Your task to perform on an android device: What's the weather today? Image 0: 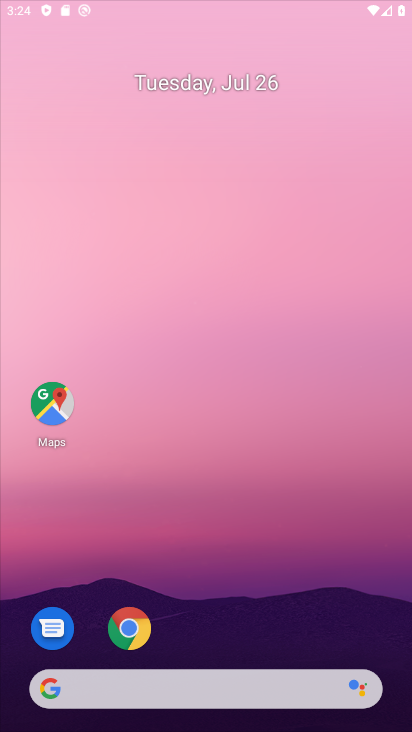
Step 0: click (219, 219)
Your task to perform on an android device: What's the weather today? Image 1: 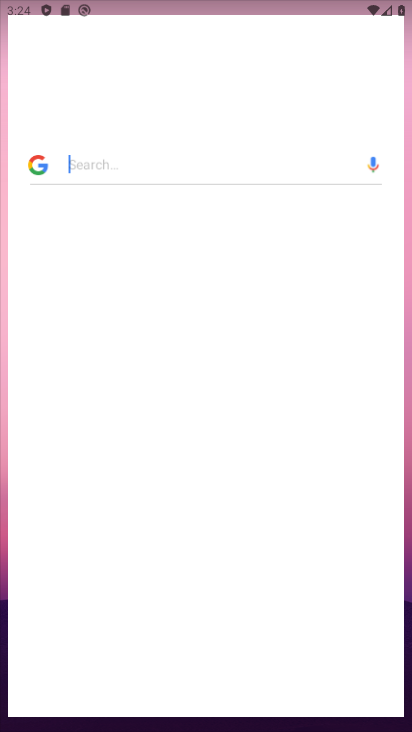
Step 1: drag from (259, 526) to (186, 216)
Your task to perform on an android device: What's the weather today? Image 2: 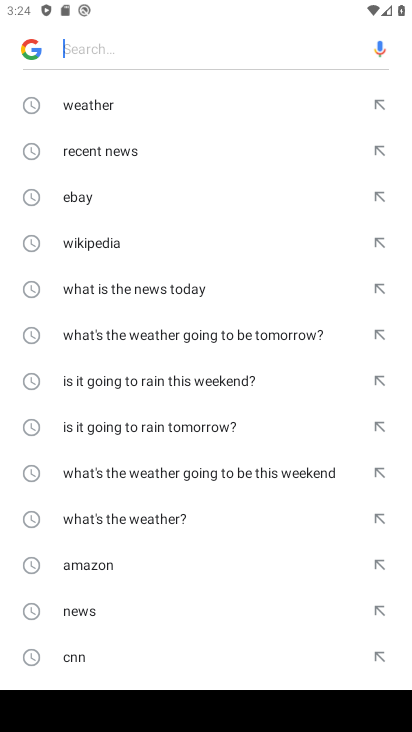
Step 2: drag from (197, 495) to (190, 383)
Your task to perform on an android device: What's the weather today? Image 3: 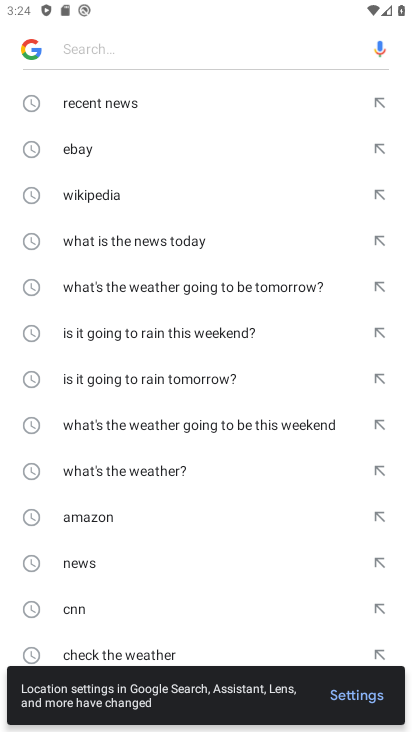
Step 3: press back button
Your task to perform on an android device: What's the weather today? Image 4: 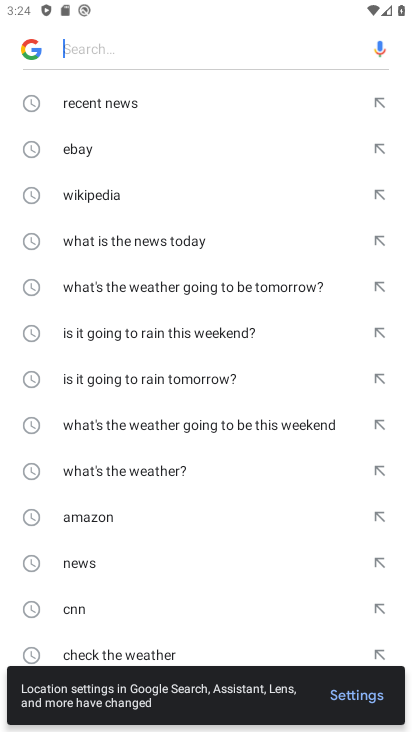
Step 4: press back button
Your task to perform on an android device: What's the weather today? Image 5: 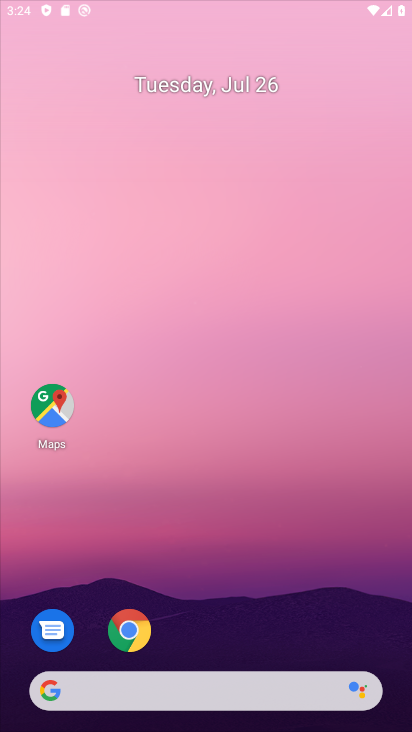
Step 5: press back button
Your task to perform on an android device: What's the weather today? Image 6: 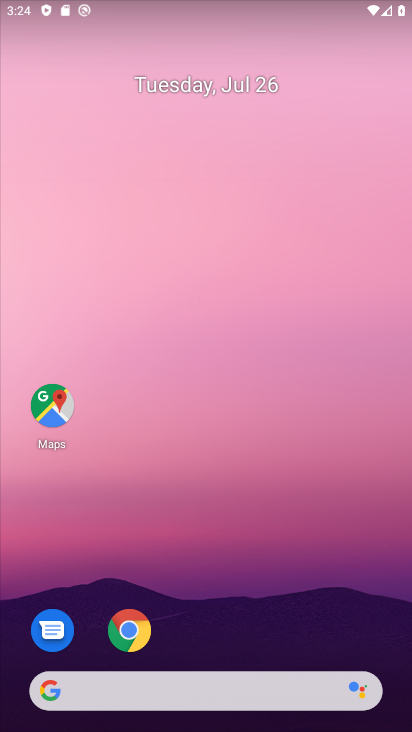
Step 6: drag from (230, 664) to (173, 13)
Your task to perform on an android device: What's the weather today? Image 7: 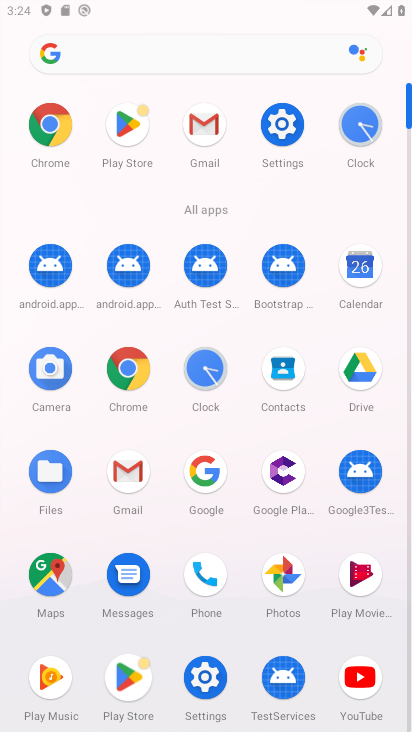
Step 7: drag from (239, 535) to (165, 37)
Your task to perform on an android device: What's the weather today? Image 8: 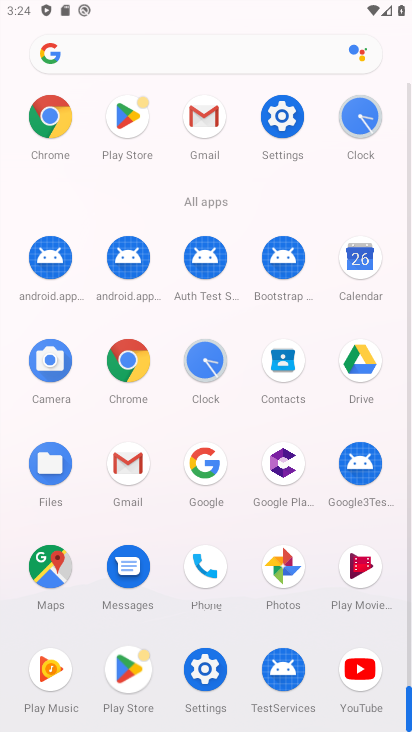
Step 8: click (42, 112)
Your task to perform on an android device: What's the weather today? Image 9: 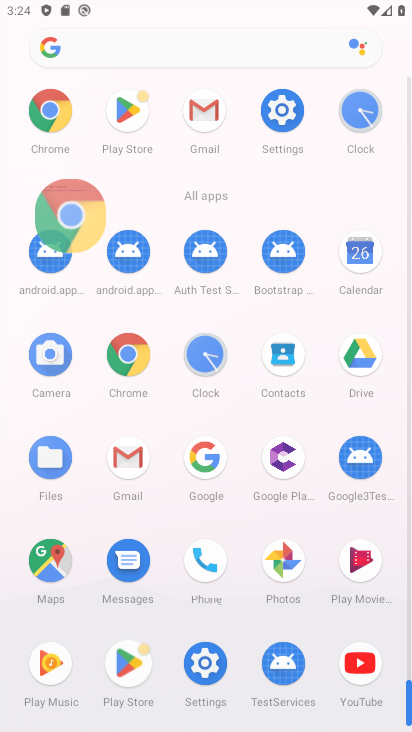
Step 9: click (50, 112)
Your task to perform on an android device: What's the weather today? Image 10: 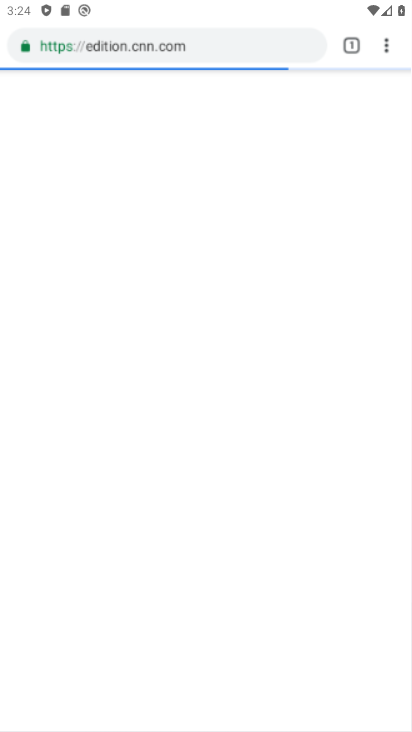
Step 10: click (50, 112)
Your task to perform on an android device: What's the weather today? Image 11: 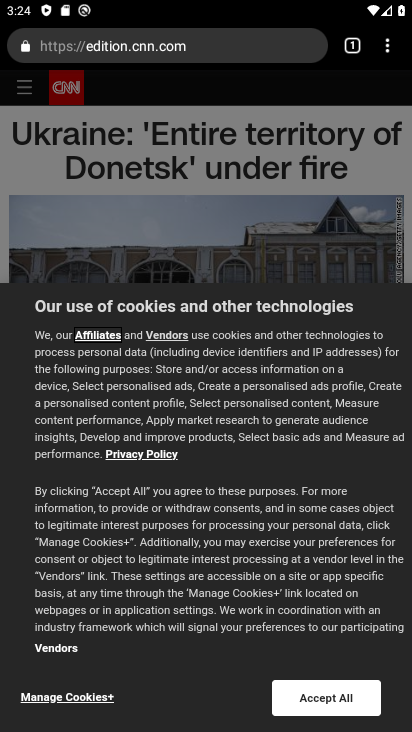
Step 11: click (386, 48)
Your task to perform on an android device: What's the weather today? Image 12: 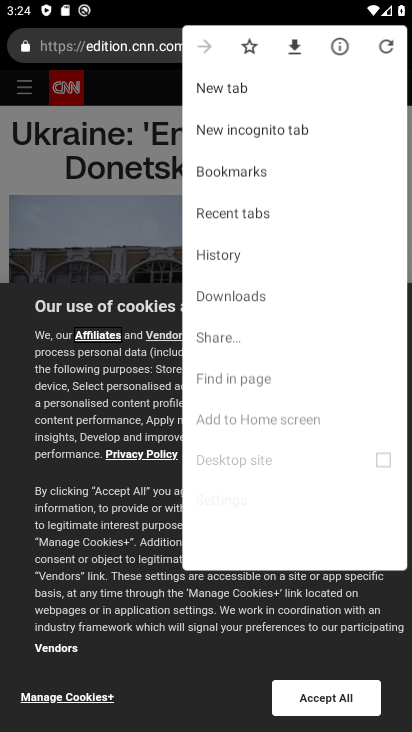
Step 12: press back button
Your task to perform on an android device: What's the weather today? Image 13: 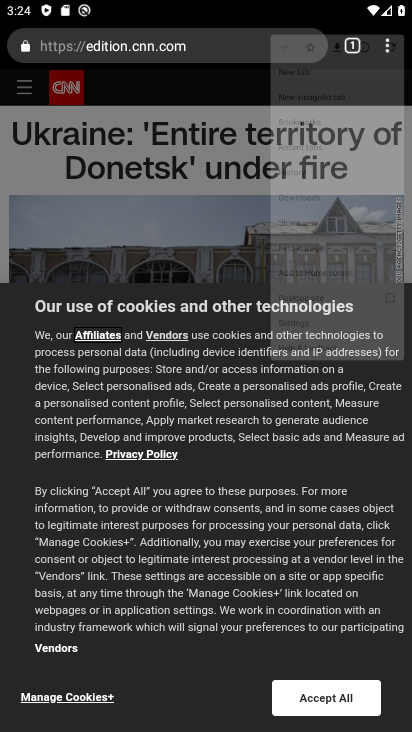
Step 13: press back button
Your task to perform on an android device: What's the weather today? Image 14: 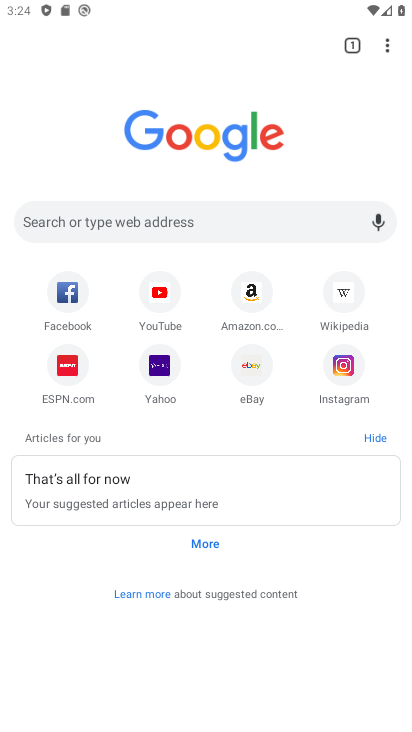
Step 14: click (87, 196)
Your task to perform on an android device: What's the weather today? Image 15: 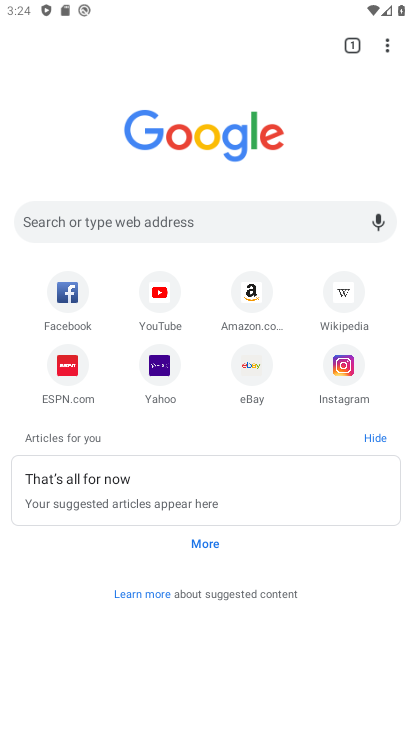
Step 15: click (86, 214)
Your task to perform on an android device: What's the weather today? Image 16: 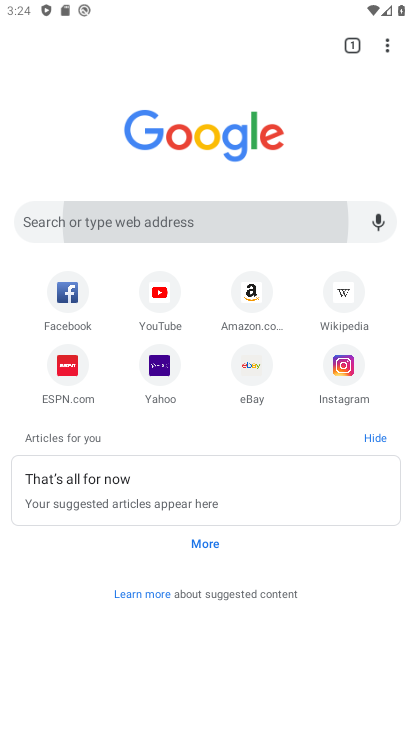
Step 16: click (85, 215)
Your task to perform on an android device: What's the weather today? Image 17: 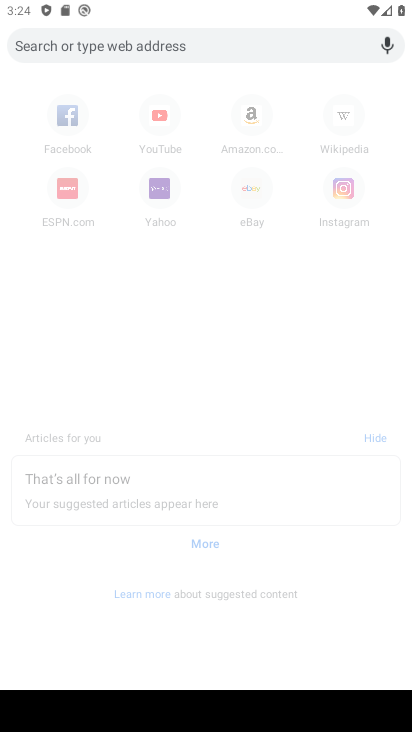
Step 17: type "weather"
Your task to perform on an android device: What's the weather today? Image 18: 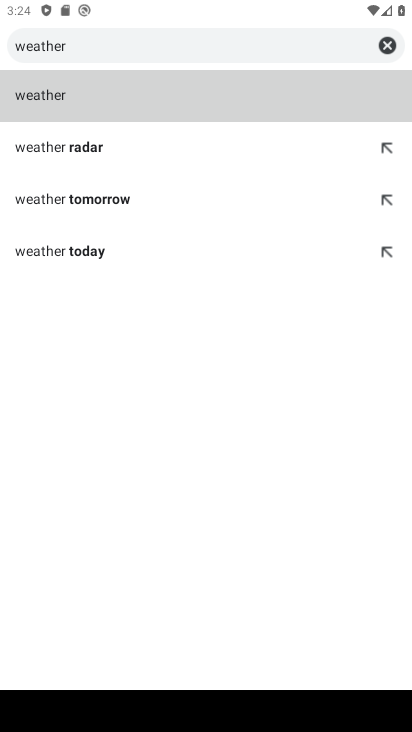
Step 18: click (59, 93)
Your task to perform on an android device: What's the weather today? Image 19: 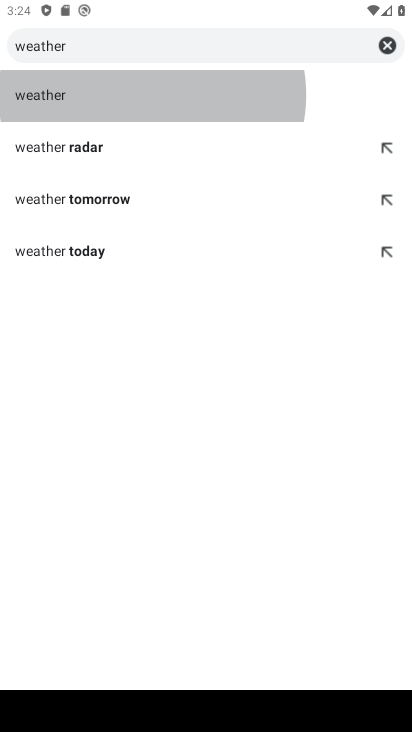
Step 19: click (62, 87)
Your task to perform on an android device: What's the weather today? Image 20: 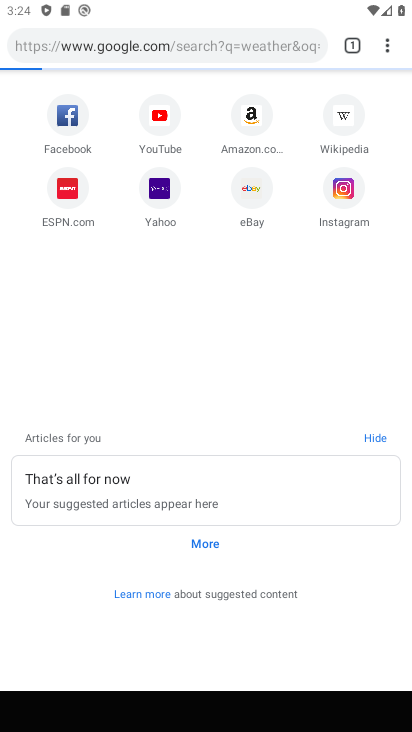
Step 20: click (64, 87)
Your task to perform on an android device: What's the weather today? Image 21: 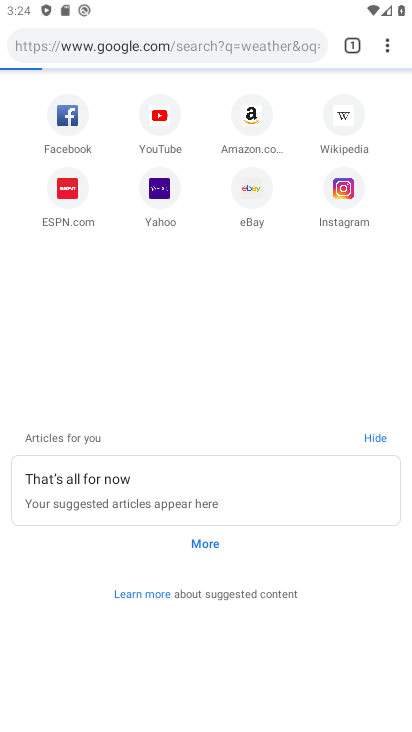
Step 21: click (64, 87)
Your task to perform on an android device: What's the weather today? Image 22: 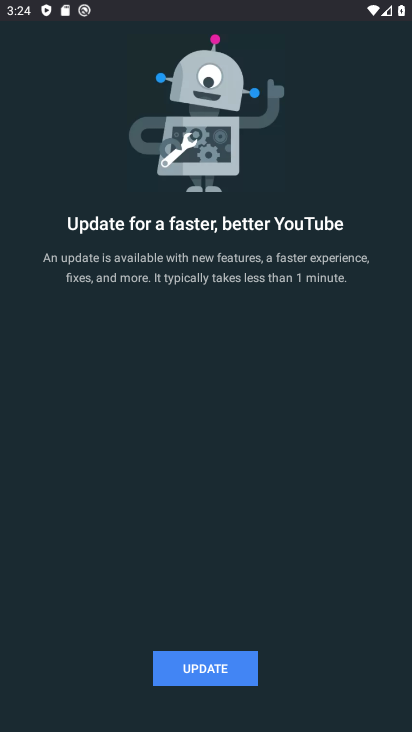
Step 22: task complete